Your task to perform on an android device: Open my contact list Image 0: 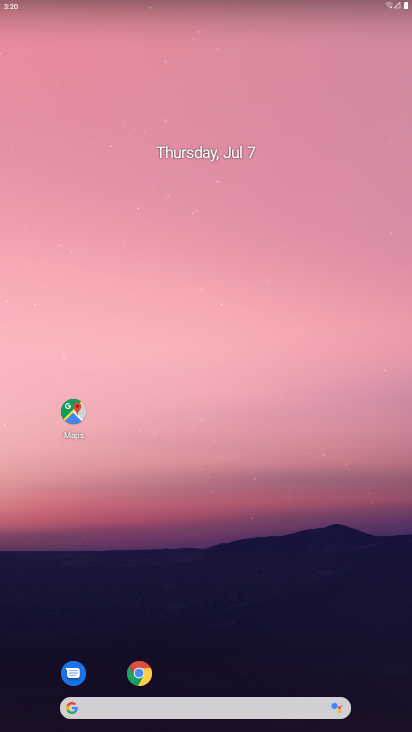
Step 0: drag from (225, 694) to (310, 159)
Your task to perform on an android device: Open my contact list Image 1: 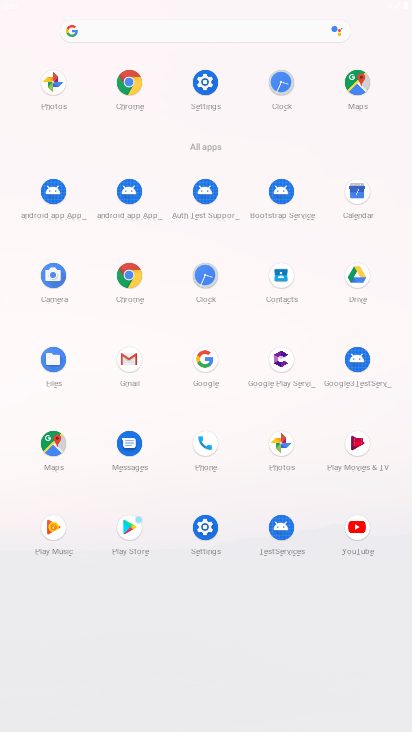
Step 1: click (278, 279)
Your task to perform on an android device: Open my contact list Image 2: 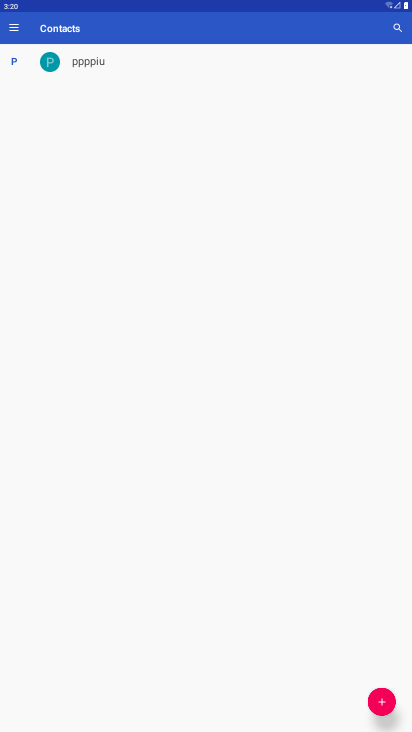
Step 2: task complete